Your task to perform on an android device: set an alarm Image 0: 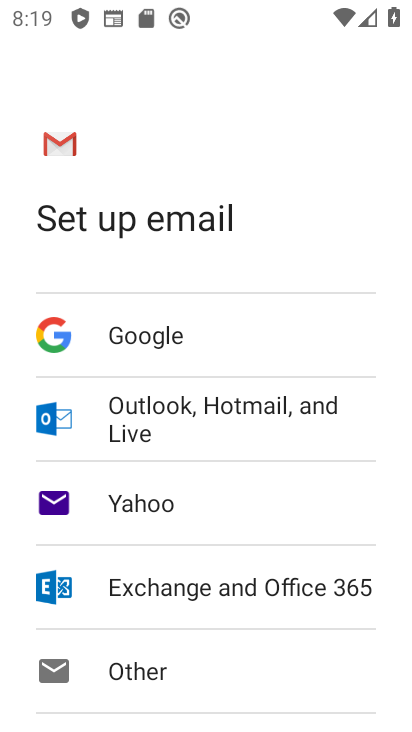
Step 0: press home button
Your task to perform on an android device: set an alarm Image 1: 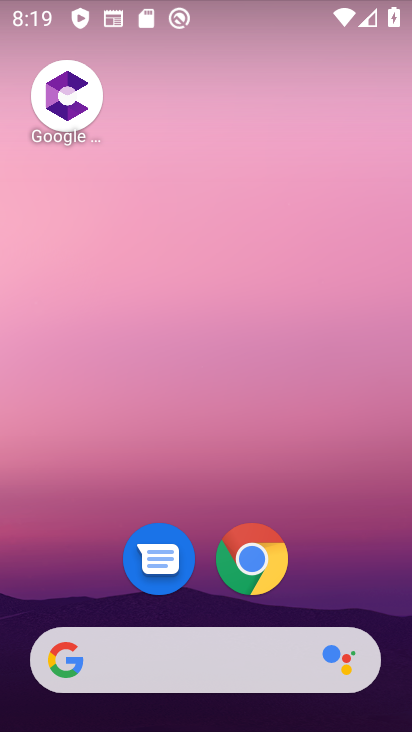
Step 1: drag from (55, 480) to (178, 216)
Your task to perform on an android device: set an alarm Image 2: 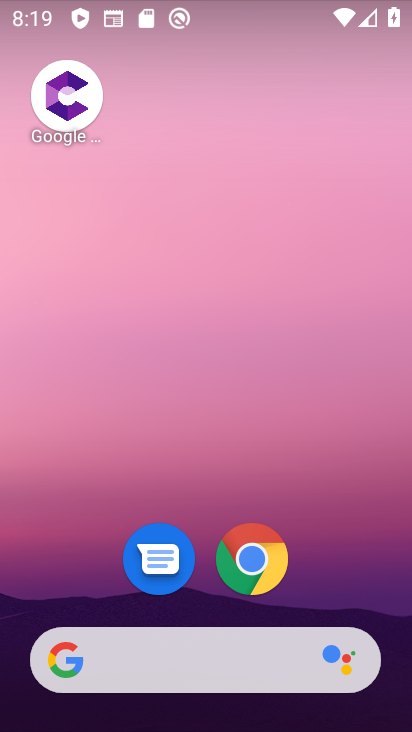
Step 2: drag from (5, 704) to (240, 161)
Your task to perform on an android device: set an alarm Image 3: 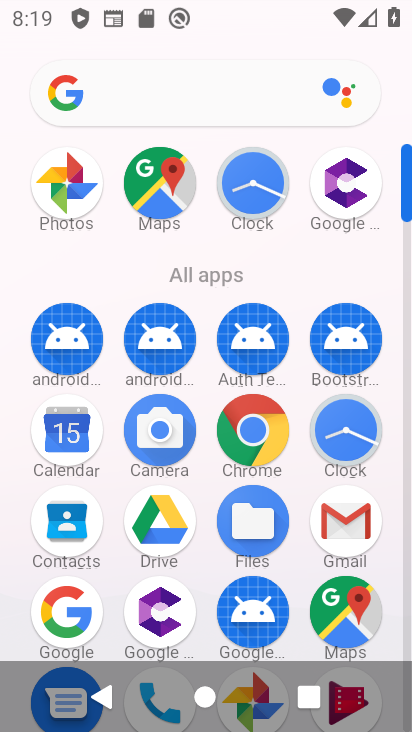
Step 3: click (331, 432)
Your task to perform on an android device: set an alarm Image 4: 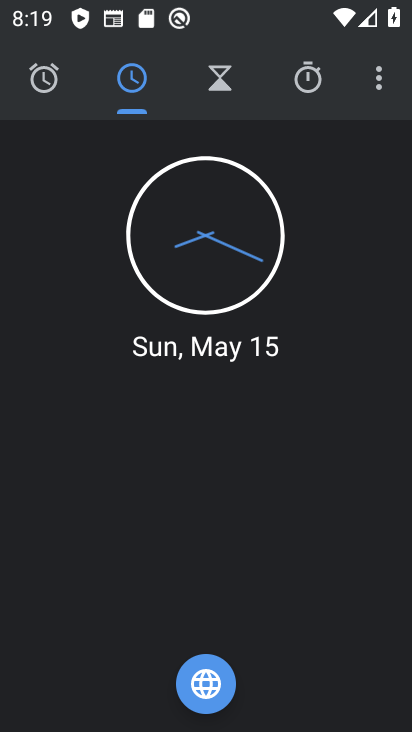
Step 4: click (42, 94)
Your task to perform on an android device: set an alarm Image 5: 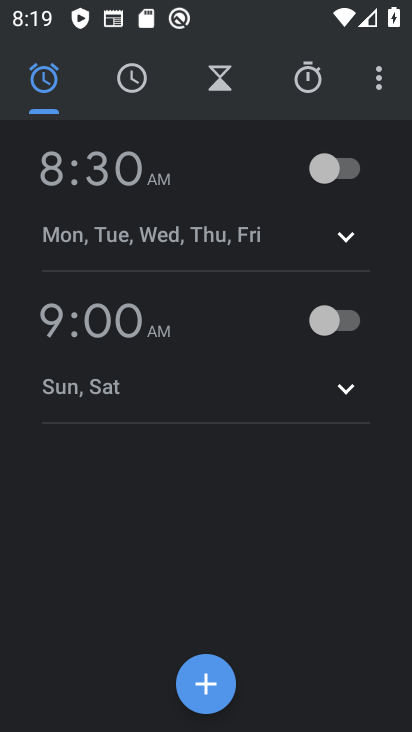
Step 5: click (199, 690)
Your task to perform on an android device: set an alarm Image 6: 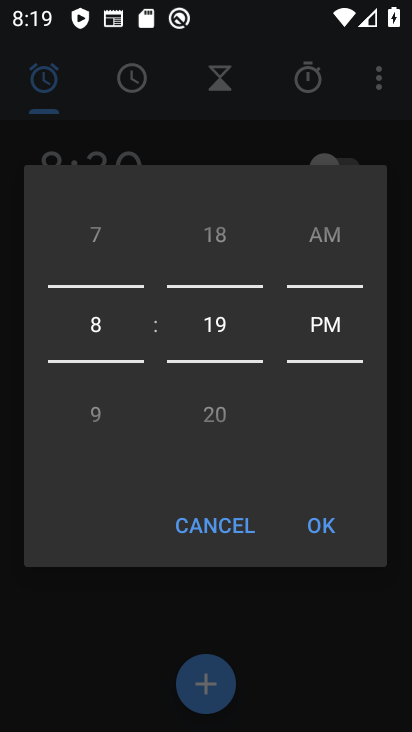
Step 6: click (329, 528)
Your task to perform on an android device: set an alarm Image 7: 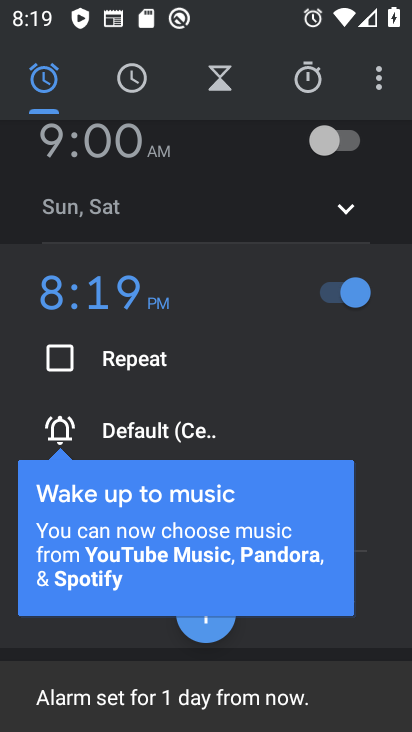
Step 7: task complete